Your task to perform on an android device: Go to eBay Image 0: 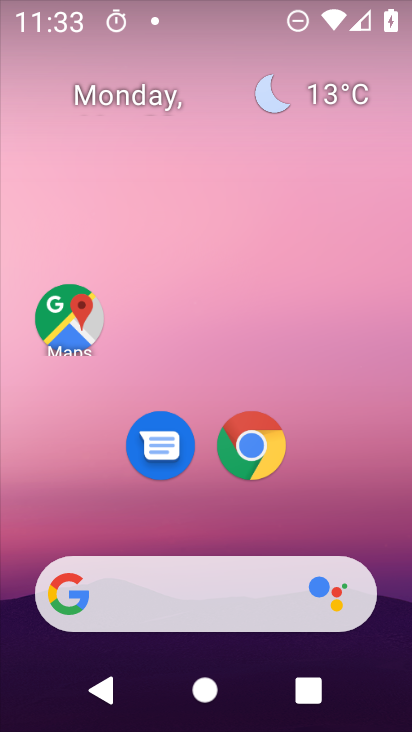
Step 0: click (246, 438)
Your task to perform on an android device: Go to eBay Image 1: 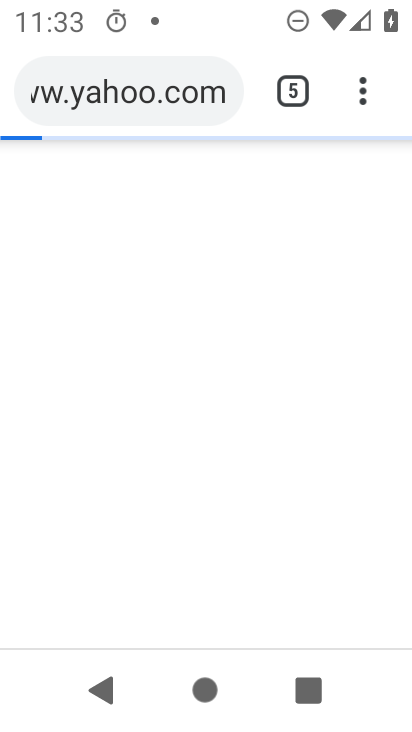
Step 1: click (290, 93)
Your task to perform on an android device: Go to eBay Image 2: 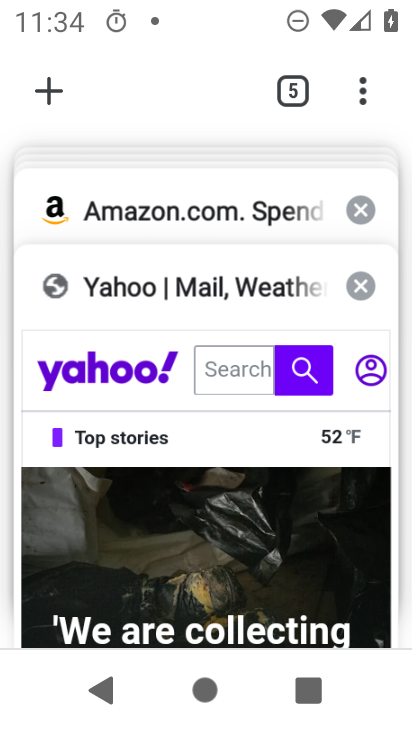
Step 2: click (47, 86)
Your task to perform on an android device: Go to eBay Image 3: 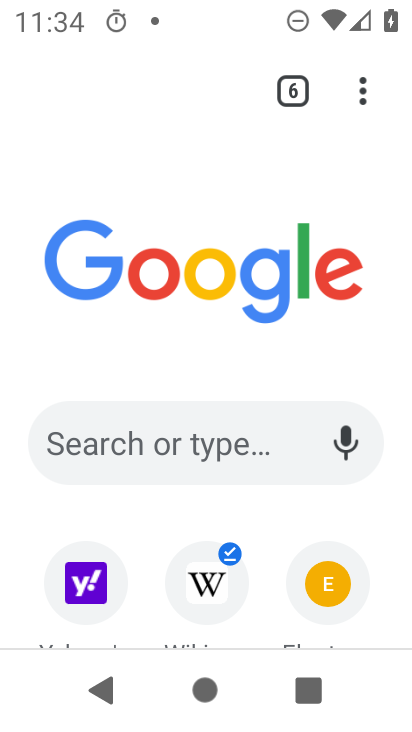
Step 3: drag from (194, 555) to (254, 436)
Your task to perform on an android device: Go to eBay Image 4: 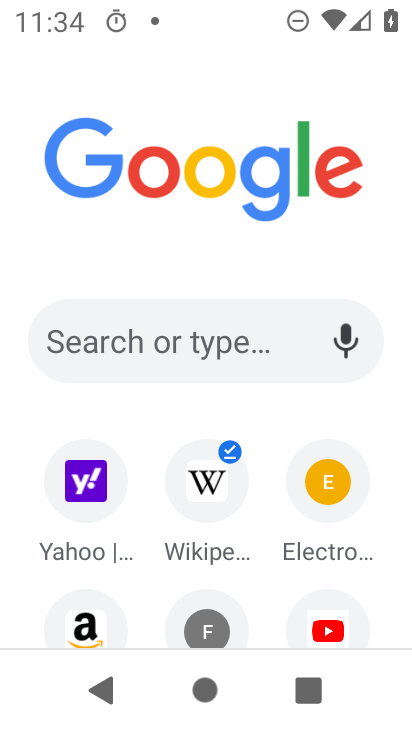
Step 4: click (125, 338)
Your task to perform on an android device: Go to eBay Image 5: 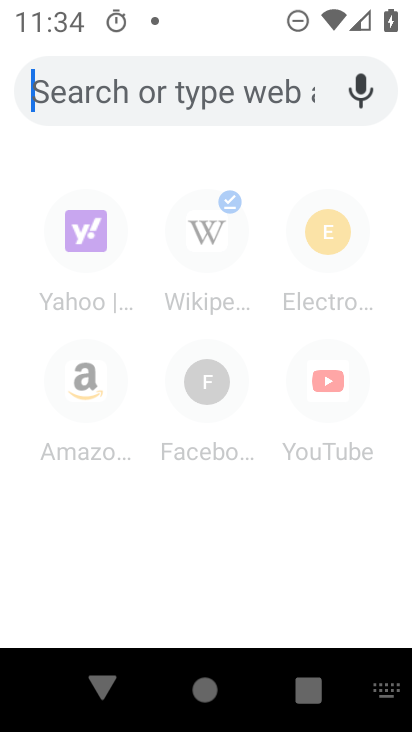
Step 5: type "ebay"
Your task to perform on an android device: Go to eBay Image 6: 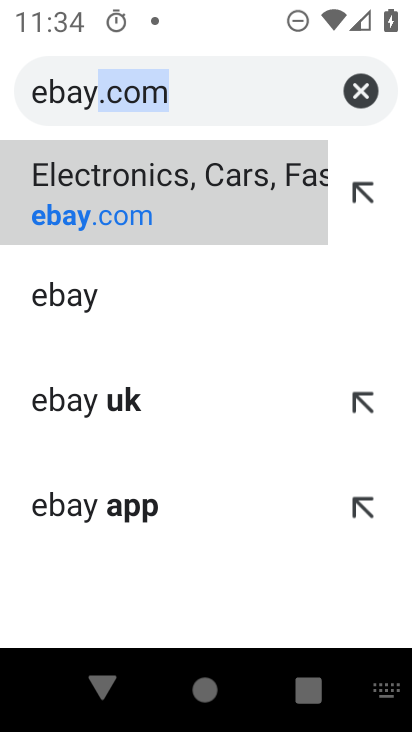
Step 6: click (147, 200)
Your task to perform on an android device: Go to eBay Image 7: 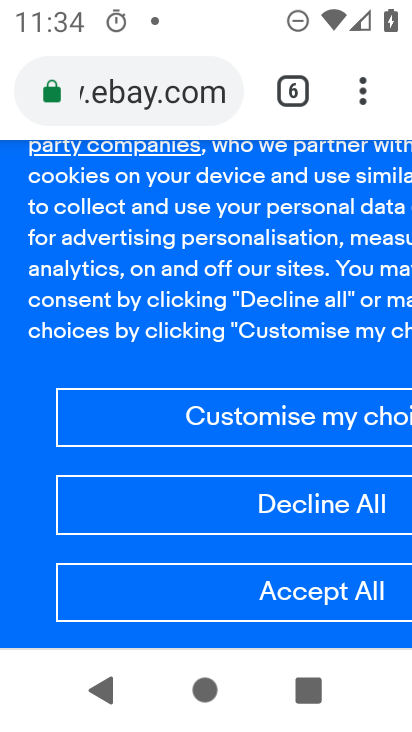
Step 7: task complete